Your task to perform on an android device: turn off airplane mode Image 0: 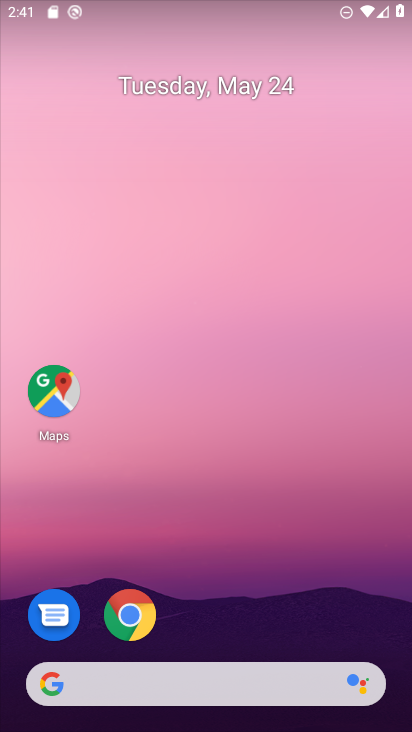
Step 0: drag from (257, 644) to (259, 247)
Your task to perform on an android device: turn off airplane mode Image 1: 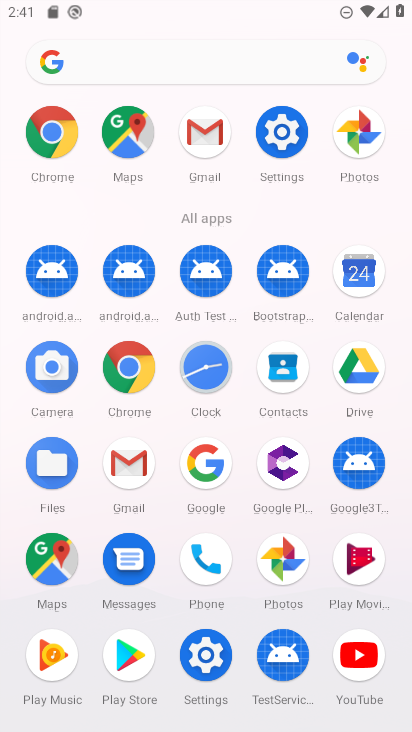
Step 1: click (280, 157)
Your task to perform on an android device: turn off airplane mode Image 2: 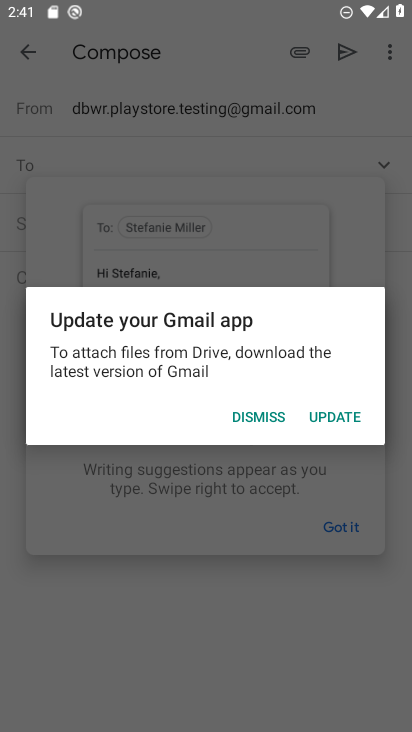
Step 2: press home button
Your task to perform on an android device: turn off airplane mode Image 3: 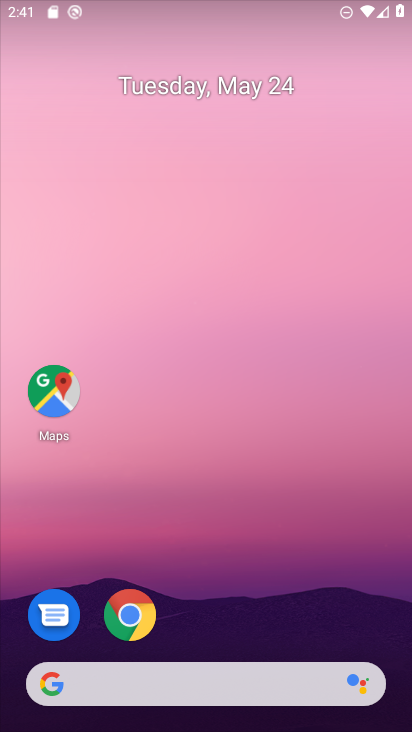
Step 3: drag from (227, 592) to (262, 194)
Your task to perform on an android device: turn off airplane mode Image 4: 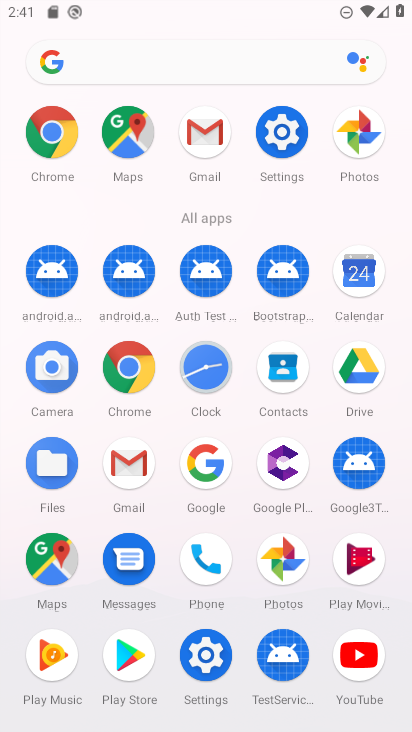
Step 4: click (279, 138)
Your task to perform on an android device: turn off airplane mode Image 5: 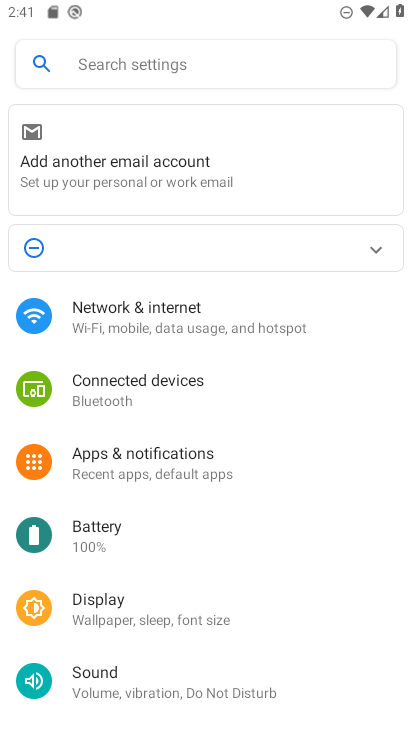
Step 5: drag from (209, 484) to (251, 269)
Your task to perform on an android device: turn off airplane mode Image 6: 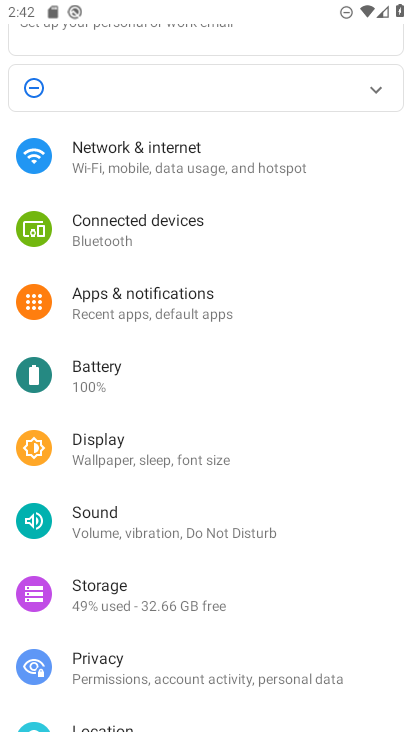
Step 6: click (180, 164)
Your task to perform on an android device: turn off airplane mode Image 7: 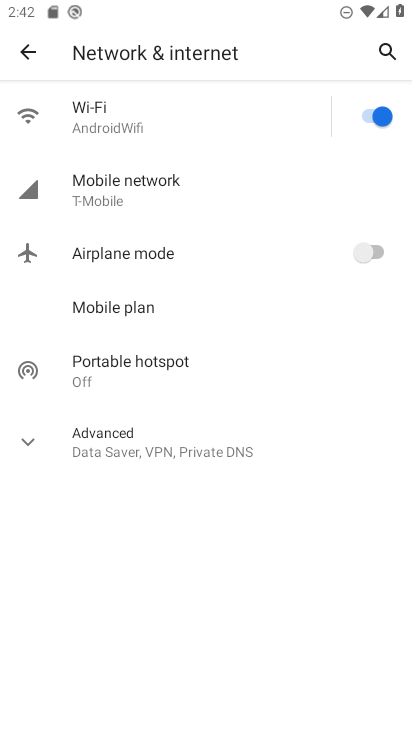
Step 7: task complete